Your task to perform on an android device: Go to Android settings Image 0: 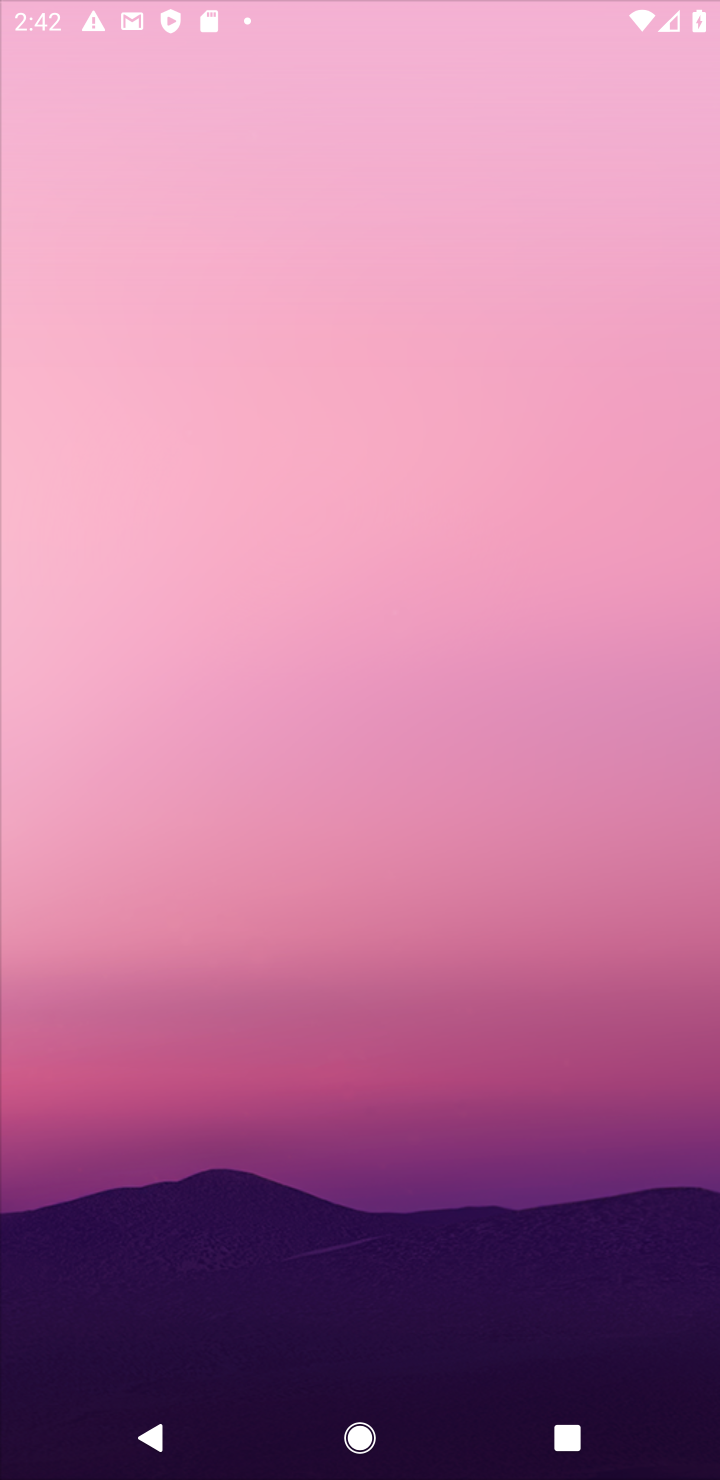
Step 0: press home button
Your task to perform on an android device: Go to Android settings Image 1: 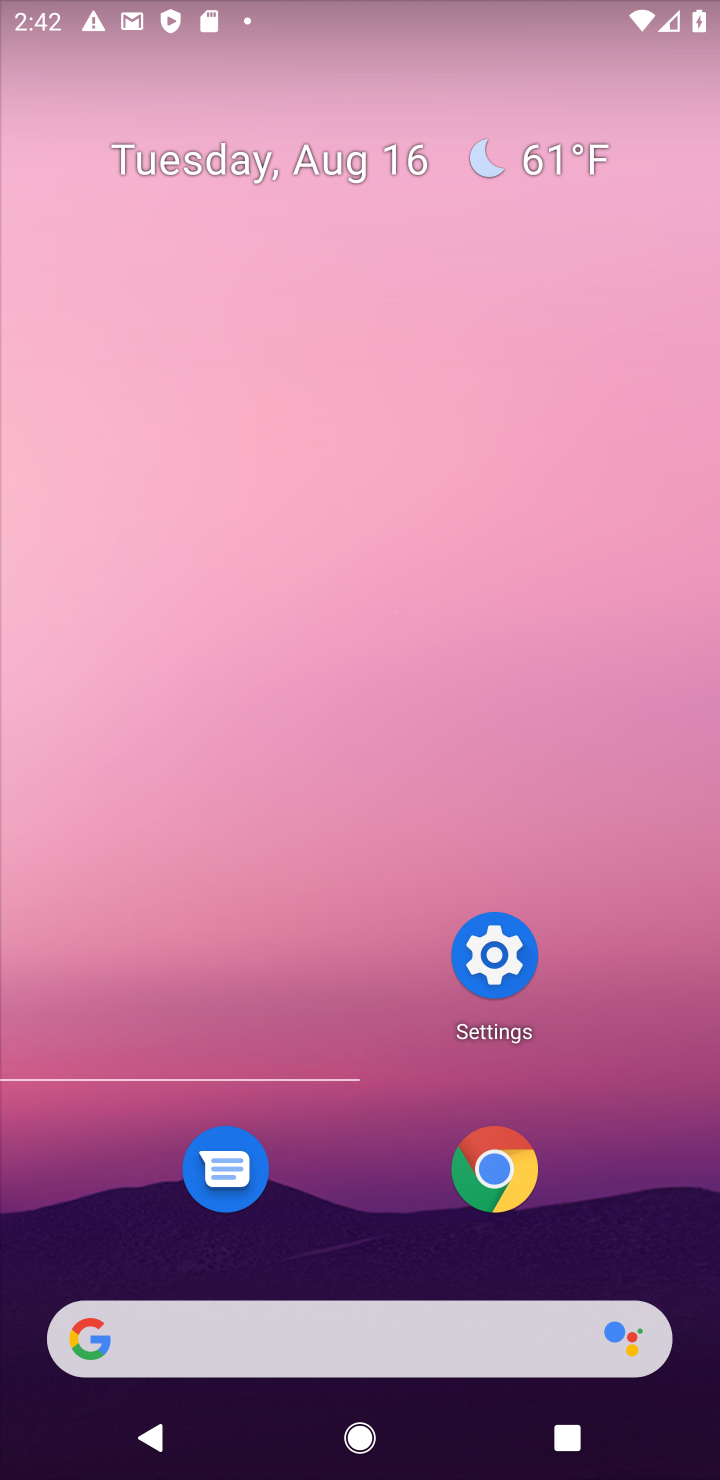
Step 1: press home button
Your task to perform on an android device: Go to Android settings Image 2: 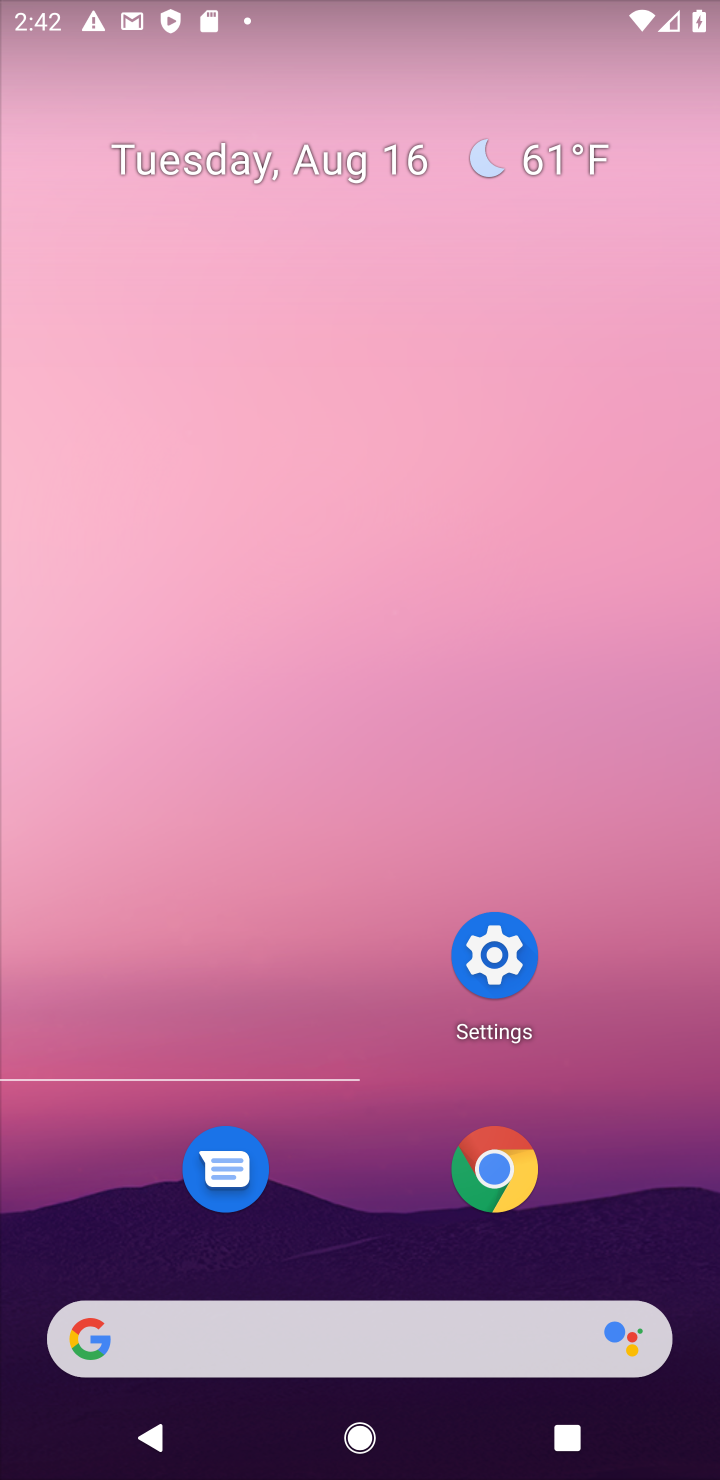
Step 2: click (490, 946)
Your task to perform on an android device: Go to Android settings Image 3: 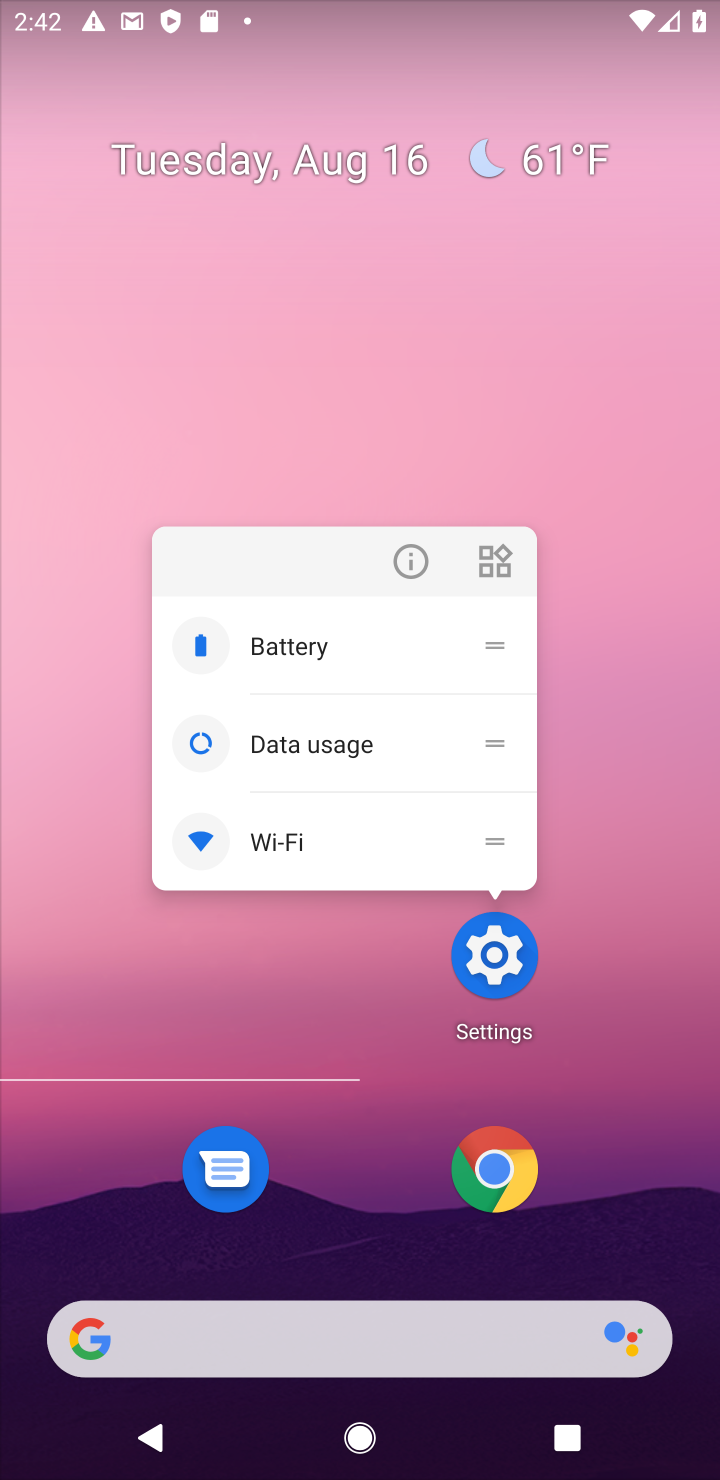
Step 3: click (491, 960)
Your task to perform on an android device: Go to Android settings Image 4: 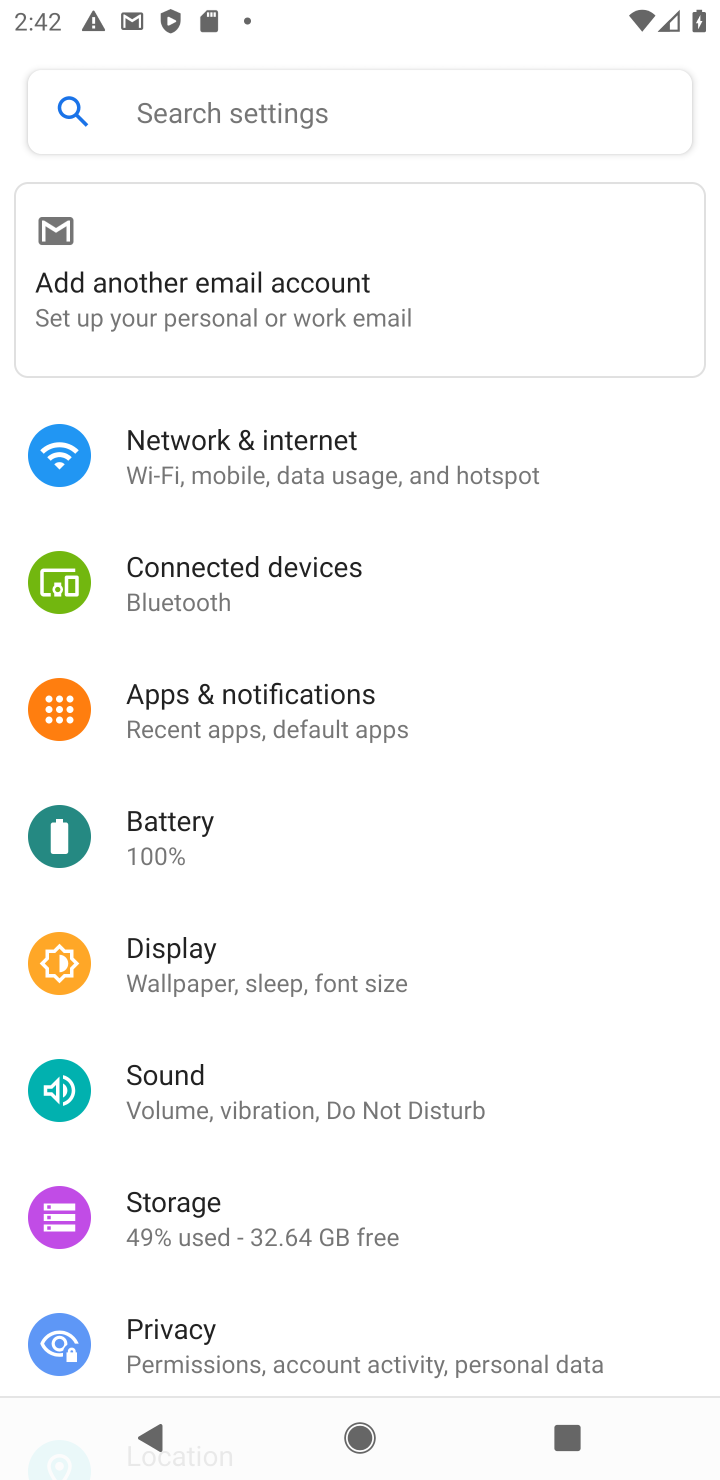
Step 4: task complete